Your task to perform on an android device: open device folders in google photos Image 0: 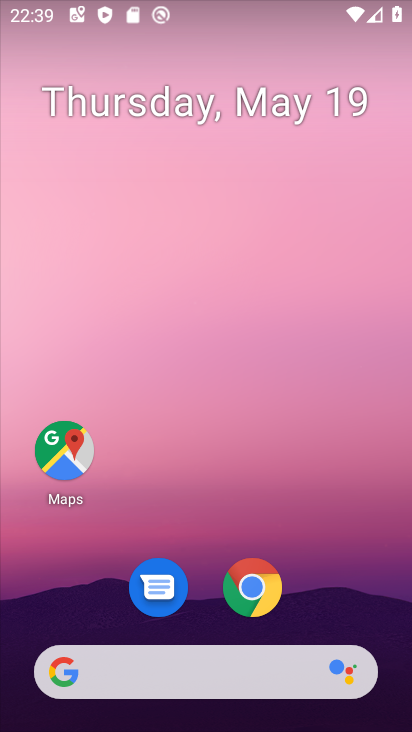
Step 0: press home button
Your task to perform on an android device: open device folders in google photos Image 1: 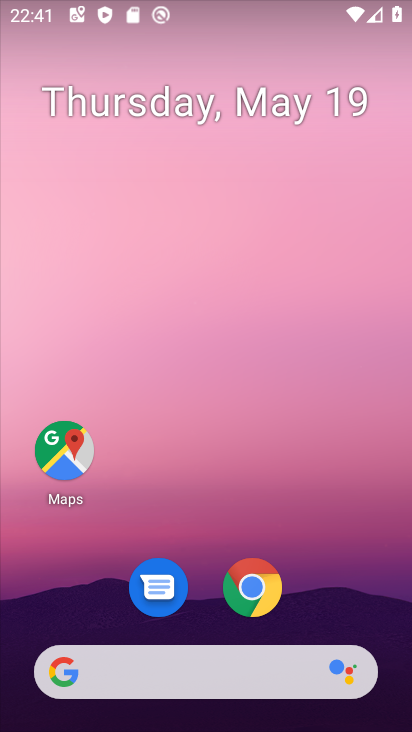
Step 1: drag from (236, 688) to (198, 262)
Your task to perform on an android device: open device folders in google photos Image 2: 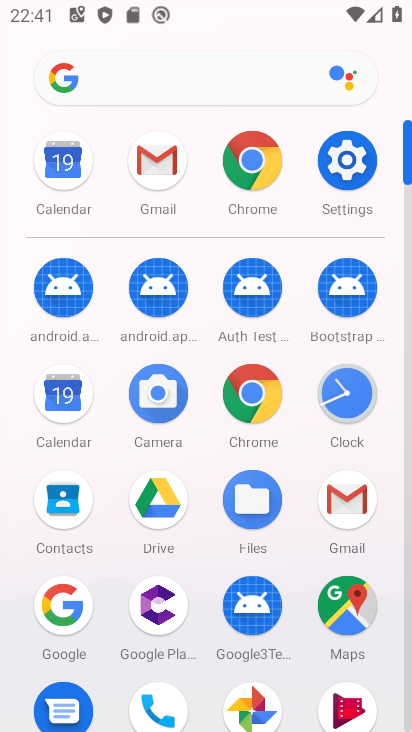
Step 2: click (249, 694)
Your task to perform on an android device: open device folders in google photos Image 3: 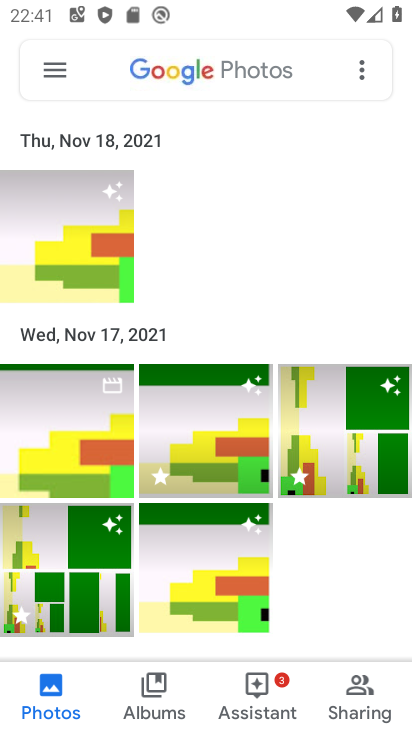
Step 3: click (63, 80)
Your task to perform on an android device: open device folders in google photos Image 4: 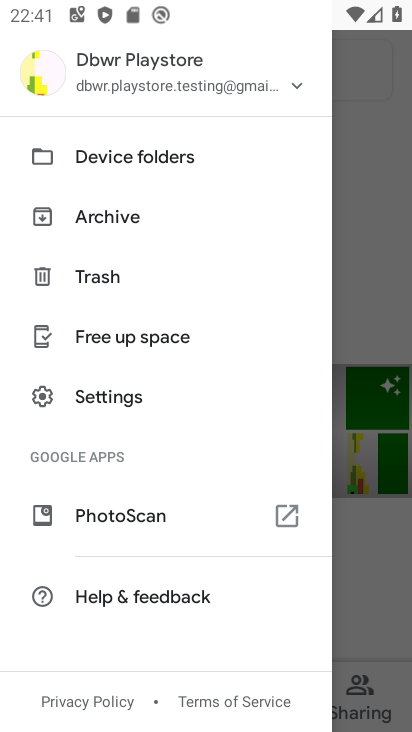
Step 4: click (156, 164)
Your task to perform on an android device: open device folders in google photos Image 5: 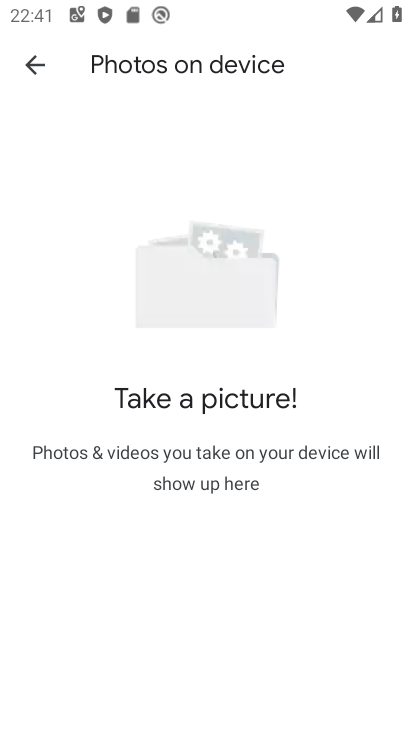
Step 5: task complete